Your task to perform on an android device: turn on the 12-hour format for clock Image 0: 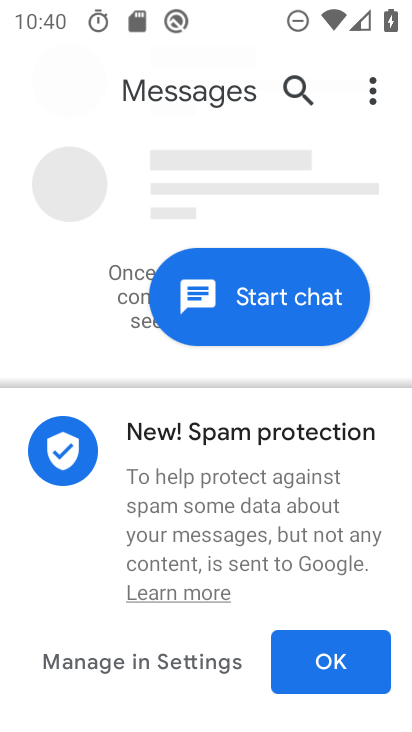
Step 0: press home button
Your task to perform on an android device: turn on the 12-hour format for clock Image 1: 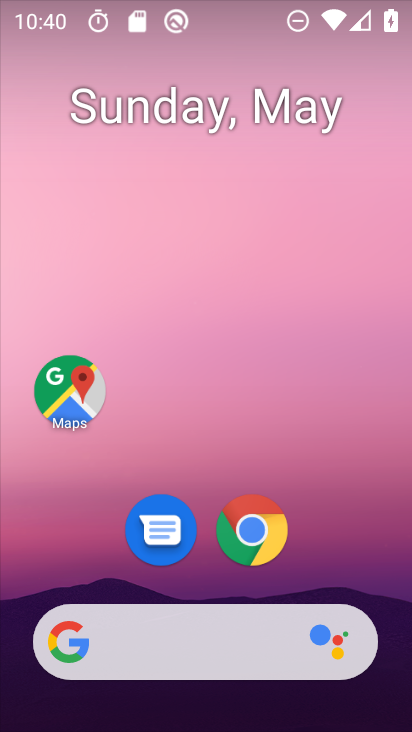
Step 1: drag from (285, 644) to (321, 159)
Your task to perform on an android device: turn on the 12-hour format for clock Image 2: 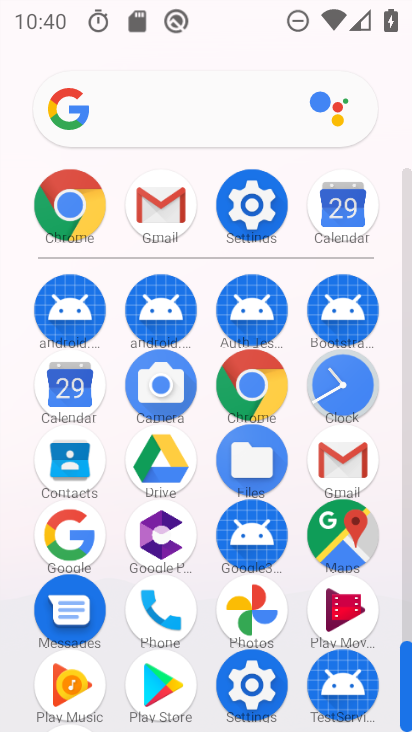
Step 2: click (325, 401)
Your task to perform on an android device: turn on the 12-hour format for clock Image 3: 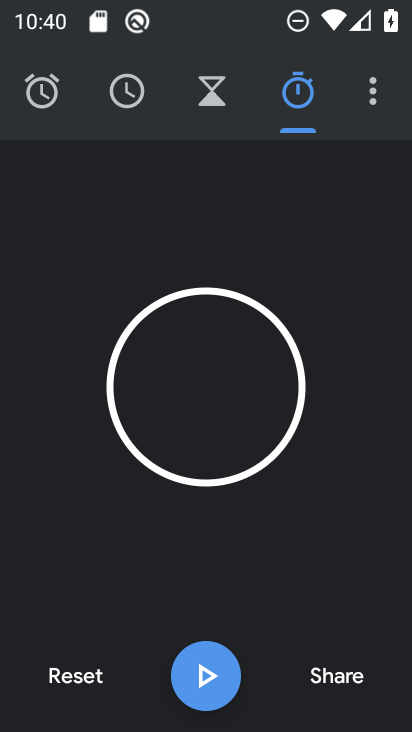
Step 3: click (373, 103)
Your task to perform on an android device: turn on the 12-hour format for clock Image 4: 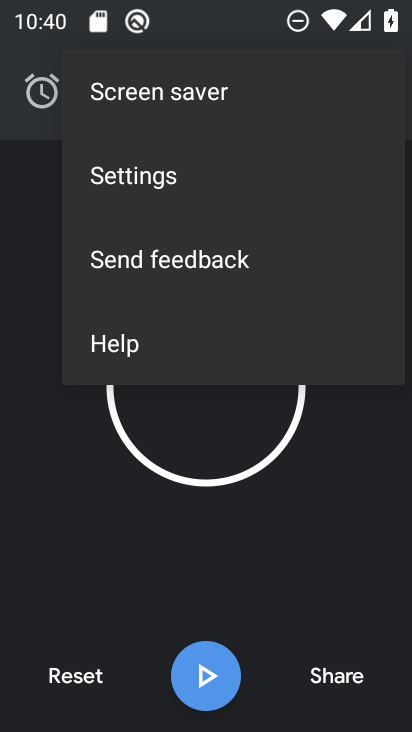
Step 4: click (259, 172)
Your task to perform on an android device: turn on the 12-hour format for clock Image 5: 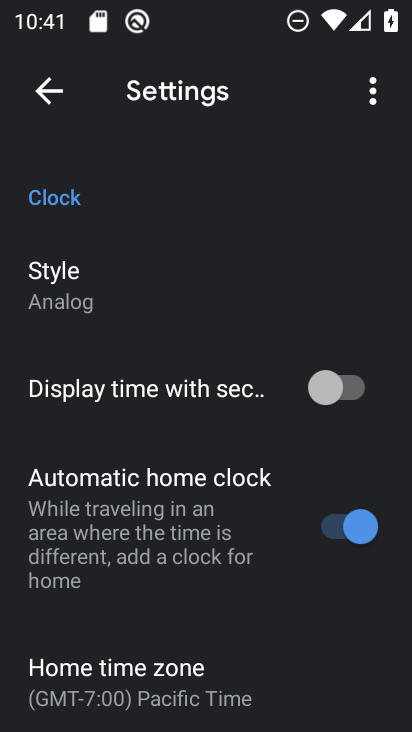
Step 5: drag from (227, 593) to (357, 115)
Your task to perform on an android device: turn on the 12-hour format for clock Image 6: 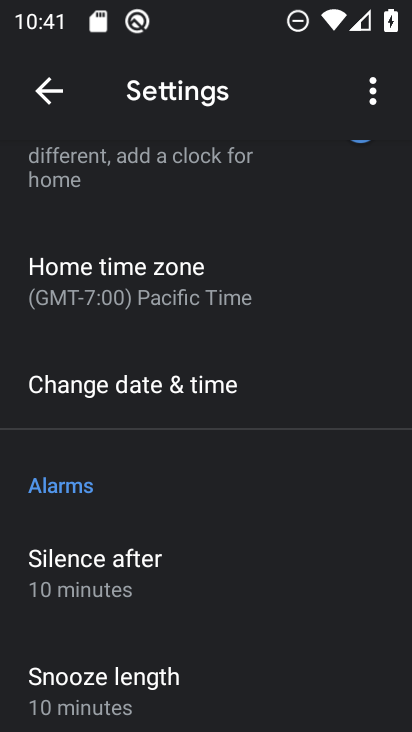
Step 6: click (146, 396)
Your task to perform on an android device: turn on the 12-hour format for clock Image 7: 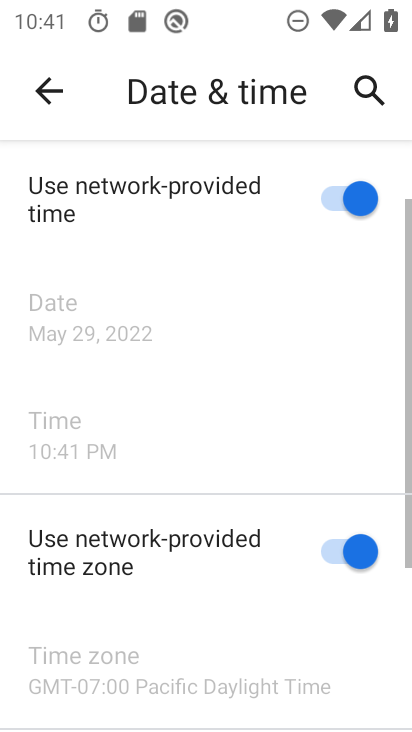
Step 7: drag from (300, 377) to (365, 155)
Your task to perform on an android device: turn on the 12-hour format for clock Image 8: 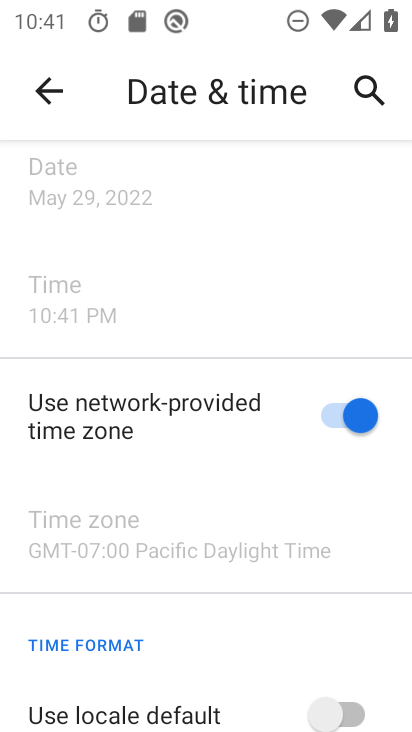
Step 8: click (367, 280)
Your task to perform on an android device: turn on the 12-hour format for clock Image 9: 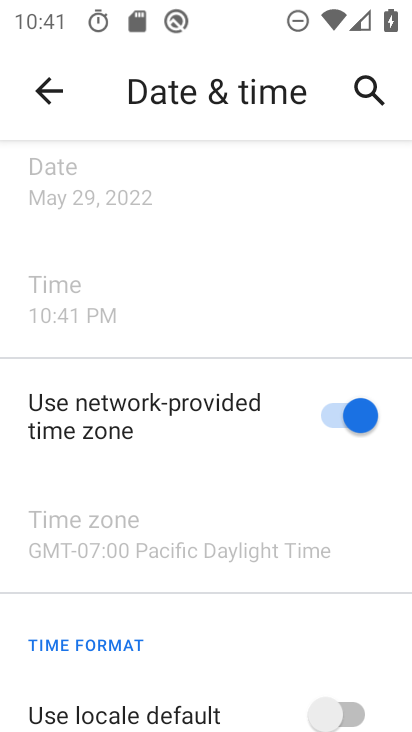
Step 9: drag from (273, 582) to (332, 243)
Your task to perform on an android device: turn on the 12-hour format for clock Image 10: 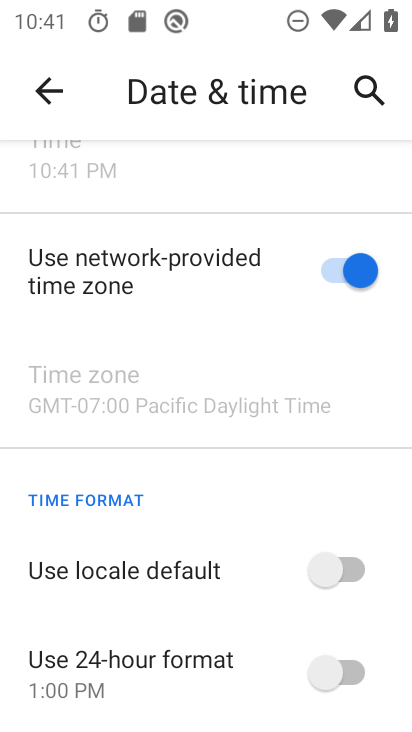
Step 10: click (336, 560)
Your task to perform on an android device: turn on the 12-hour format for clock Image 11: 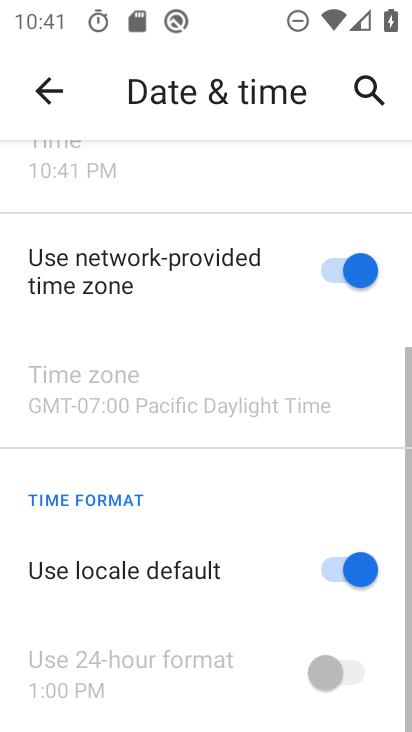
Step 11: click (336, 560)
Your task to perform on an android device: turn on the 12-hour format for clock Image 12: 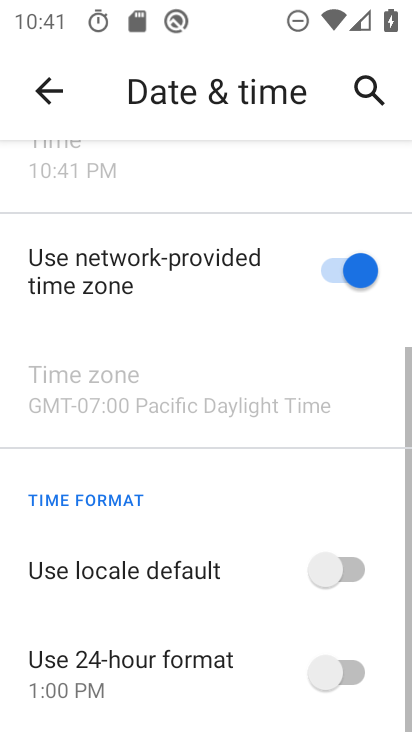
Step 12: click (339, 675)
Your task to perform on an android device: turn on the 12-hour format for clock Image 13: 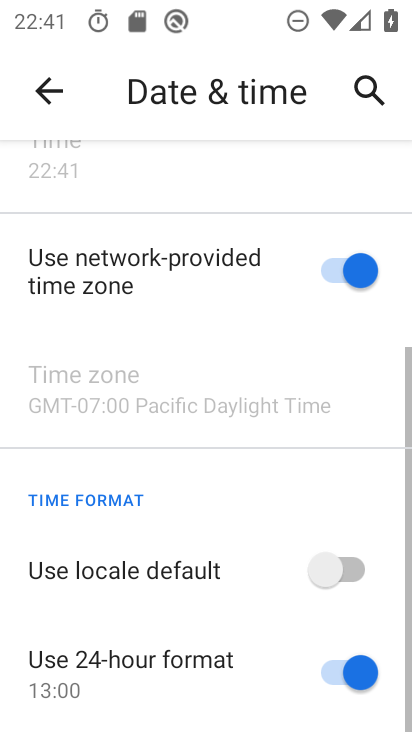
Step 13: click (339, 673)
Your task to perform on an android device: turn on the 12-hour format for clock Image 14: 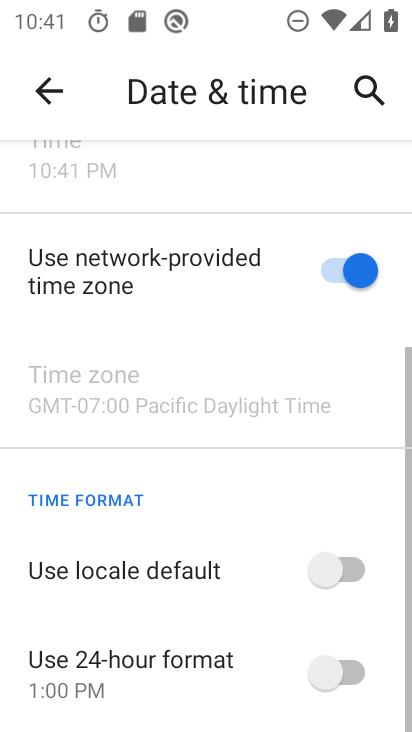
Step 14: task complete